Your task to perform on an android device: set the timer Image 0: 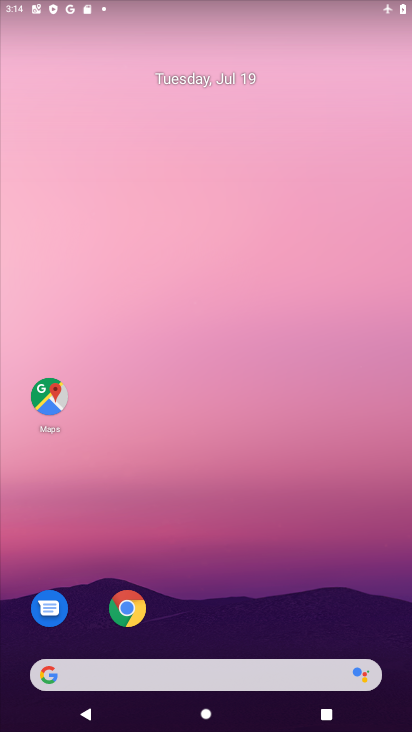
Step 0: drag from (284, 598) to (269, 85)
Your task to perform on an android device: set the timer Image 1: 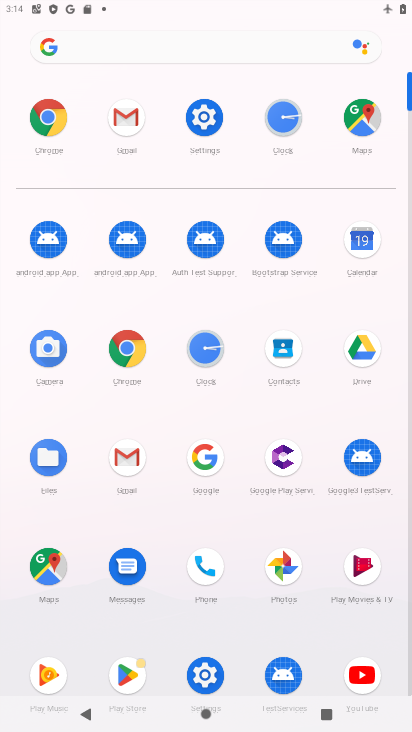
Step 1: click (285, 121)
Your task to perform on an android device: set the timer Image 2: 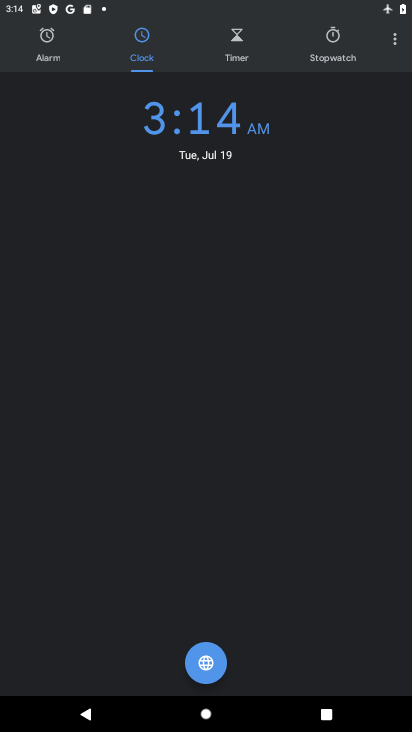
Step 2: click (243, 53)
Your task to perform on an android device: set the timer Image 3: 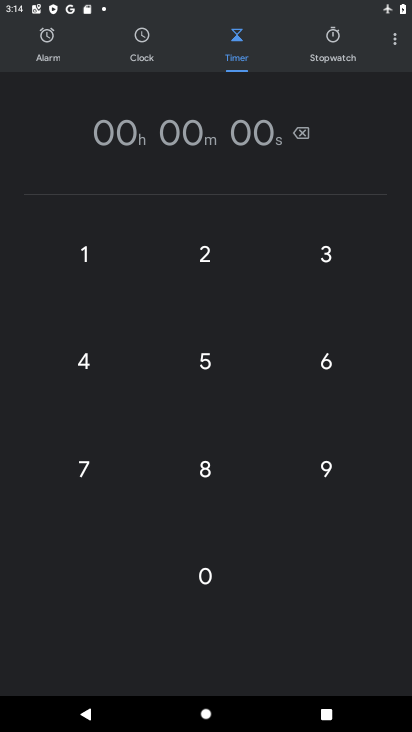
Step 3: click (200, 355)
Your task to perform on an android device: set the timer Image 4: 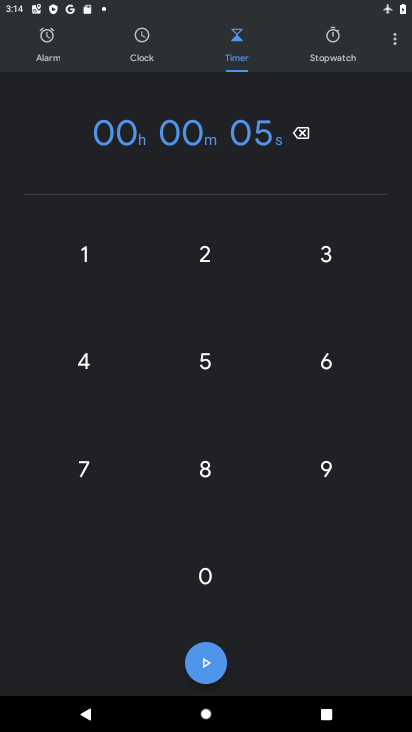
Step 4: task complete